Your task to perform on an android device: toggle pop-ups in chrome Image 0: 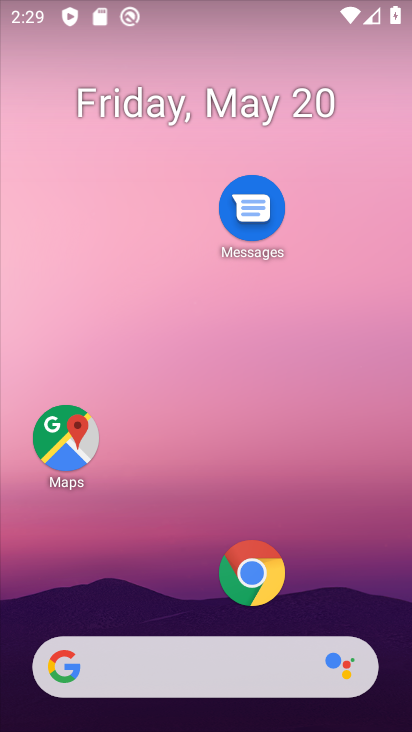
Step 0: click (249, 573)
Your task to perform on an android device: toggle pop-ups in chrome Image 1: 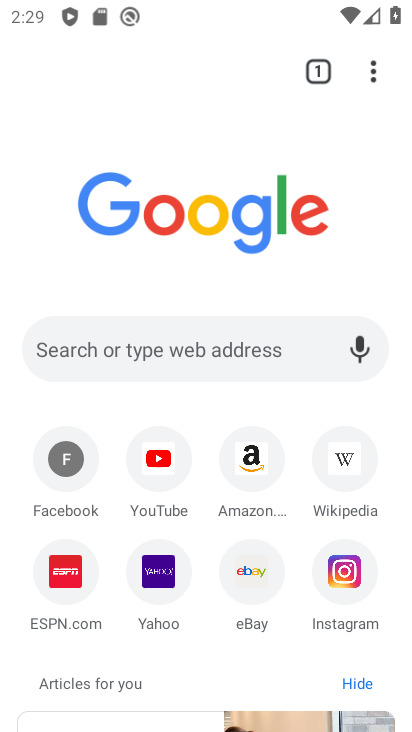
Step 1: click (381, 75)
Your task to perform on an android device: toggle pop-ups in chrome Image 2: 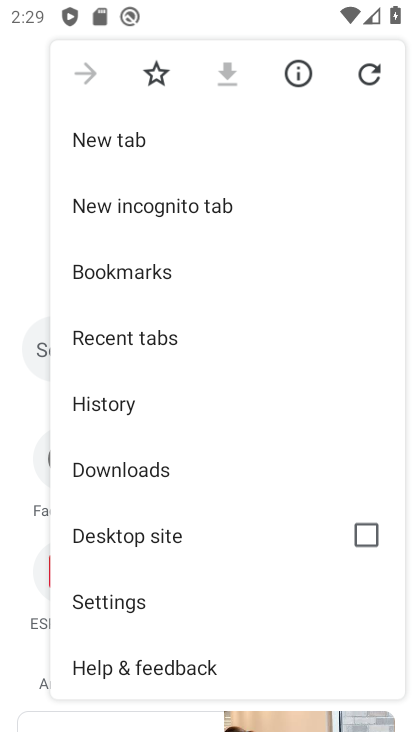
Step 2: drag from (153, 655) to (215, 232)
Your task to perform on an android device: toggle pop-ups in chrome Image 3: 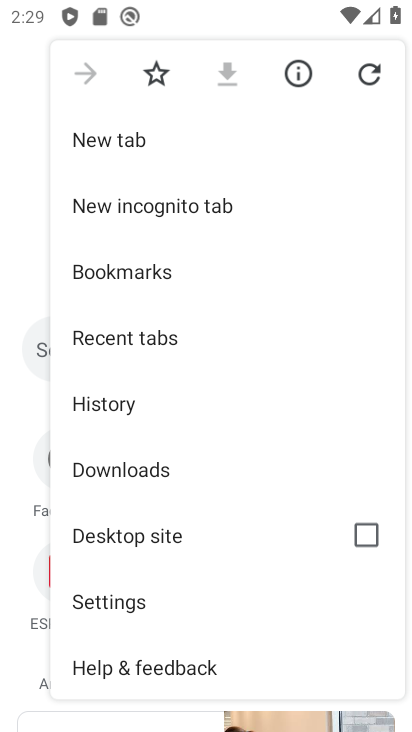
Step 3: click (117, 589)
Your task to perform on an android device: toggle pop-ups in chrome Image 4: 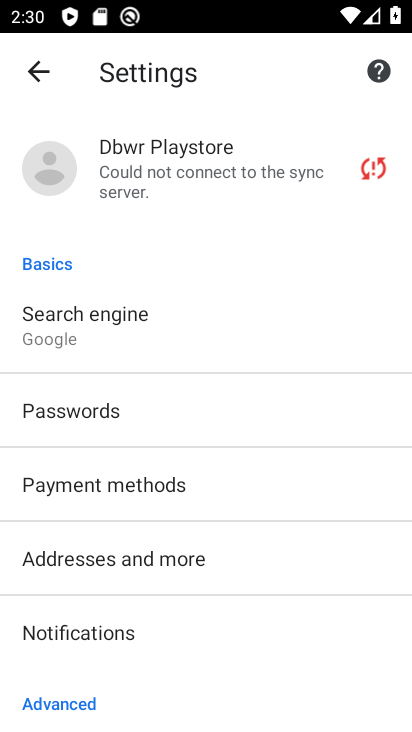
Step 4: click (117, 589)
Your task to perform on an android device: toggle pop-ups in chrome Image 5: 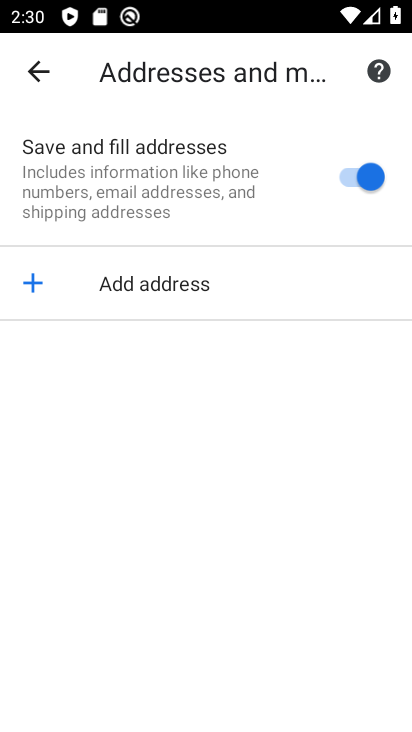
Step 5: drag from (197, 513) to (223, 177)
Your task to perform on an android device: toggle pop-ups in chrome Image 6: 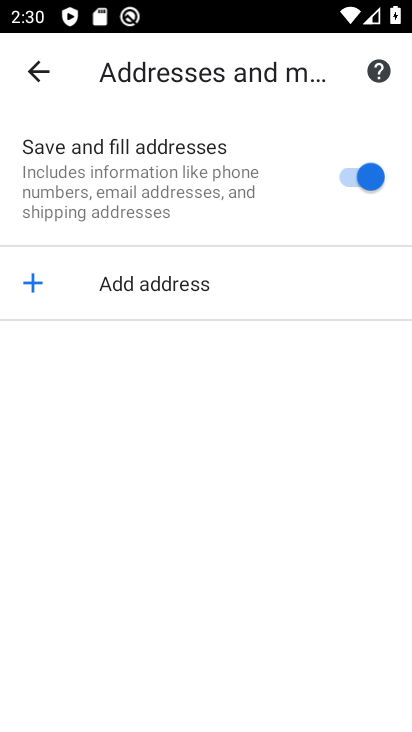
Step 6: click (122, 108)
Your task to perform on an android device: toggle pop-ups in chrome Image 7: 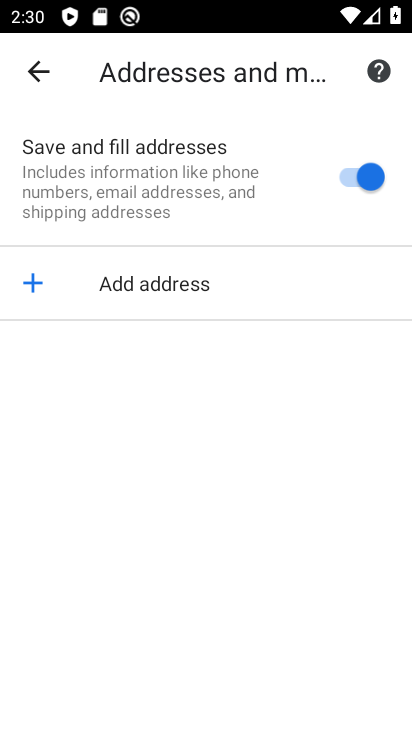
Step 7: click (50, 84)
Your task to perform on an android device: toggle pop-ups in chrome Image 8: 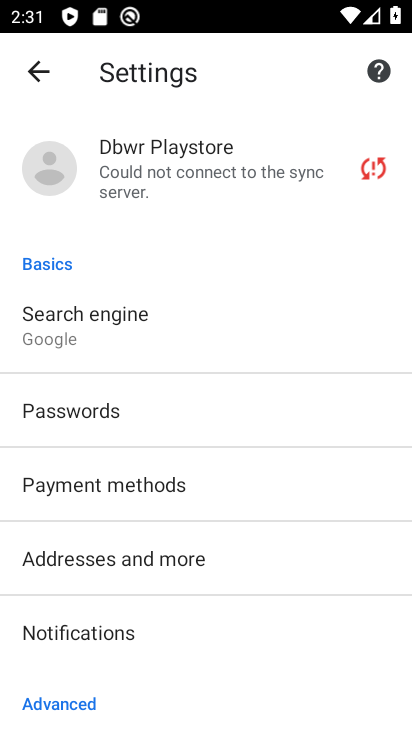
Step 8: drag from (131, 623) to (159, 297)
Your task to perform on an android device: toggle pop-ups in chrome Image 9: 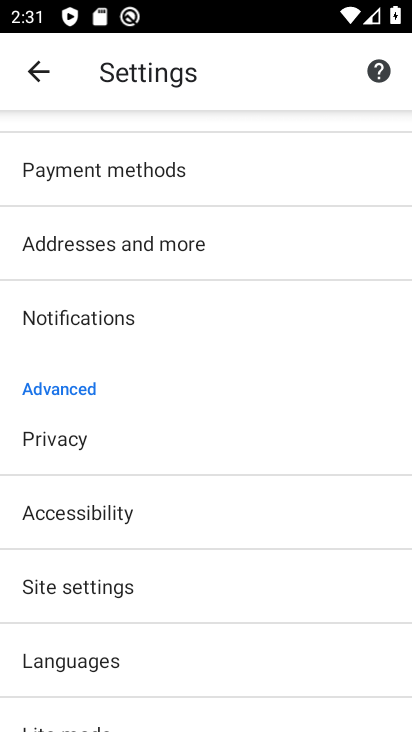
Step 9: drag from (165, 619) to (175, 397)
Your task to perform on an android device: toggle pop-ups in chrome Image 10: 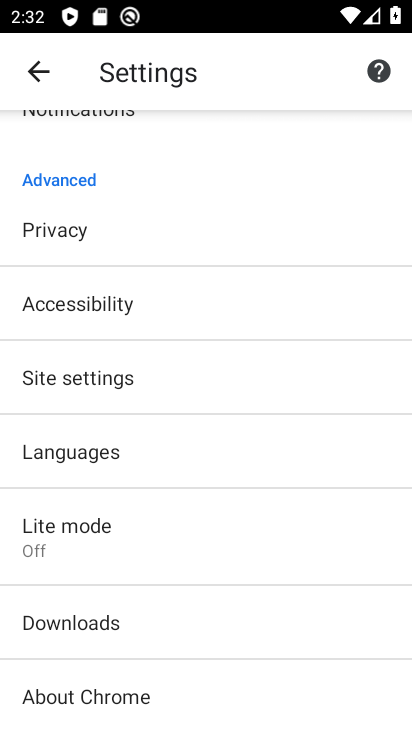
Step 10: drag from (233, 236) to (210, 583)
Your task to perform on an android device: toggle pop-ups in chrome Image 11: 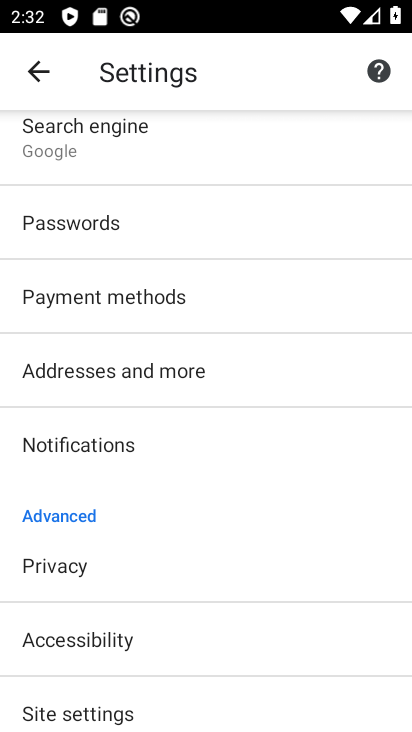
Step 11: drag from (144, 210) to (125, 621)
Your task to perform on an android device: toggle pop-ups in chrome Image 12: 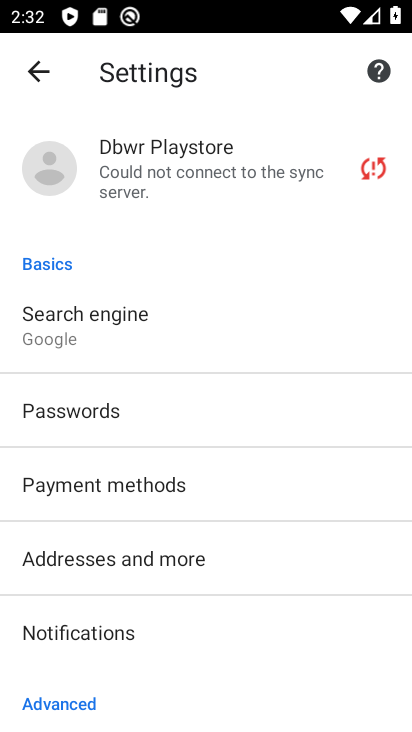
Step 12: drag from (183, 621) to (290, 187)
Your task to perform on an android device: toggle pop-ups in chrome Image 13: 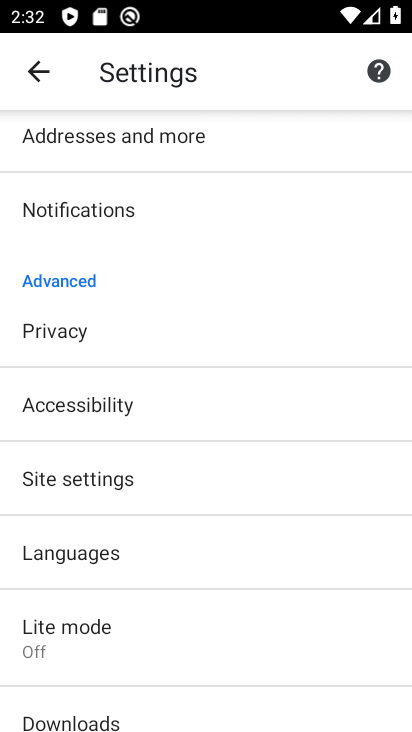
Step 13: click (185, 482)
Your task to perform on an android device: toggle pop-ups in chrome Image 14: 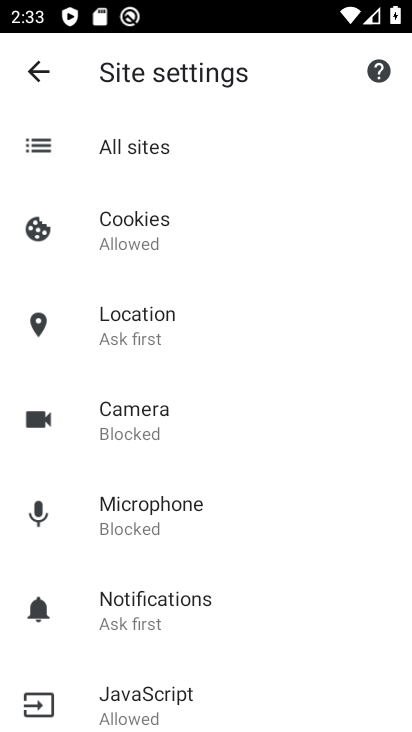
Step 14: drag from (124, 622) to (191, 205)
Your task to perform on an android device: toggle pop-ups in chrome Image 15: 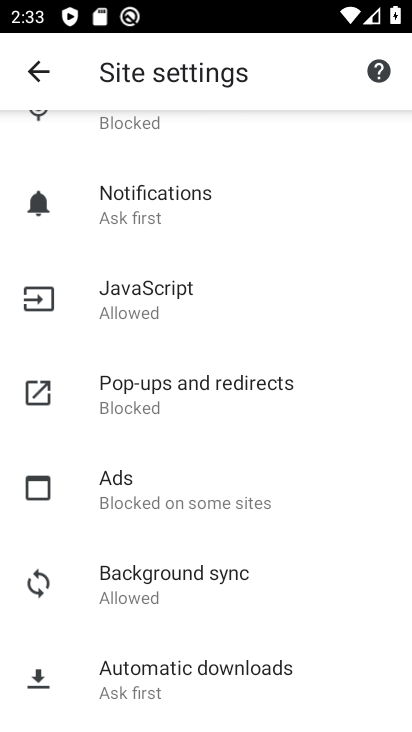
Step 15: click (255, 417)
Your task to perform on an android device: toggle pop-ups in chrome Image 16: 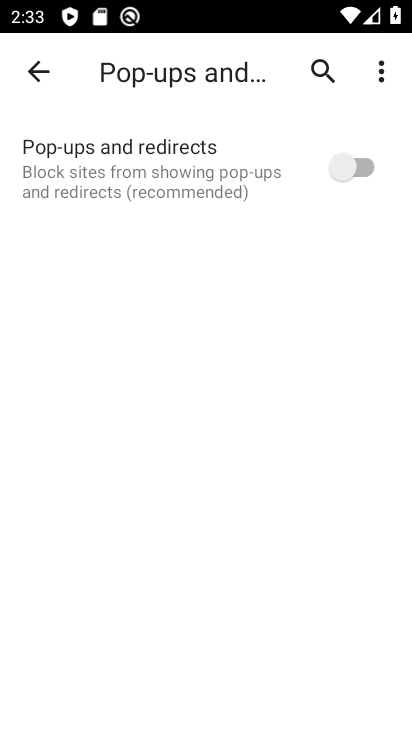
Step 16: click (352, 168)
Your task to perform on an android device: toggle pop-ups in chrome Image 17: 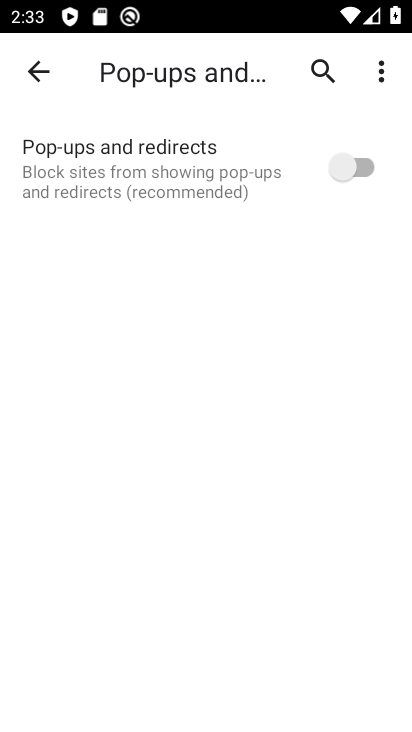
Step 17: click (352, 168)
Your task to perform on an android device: toggle pop-ups in chrome Image 18: 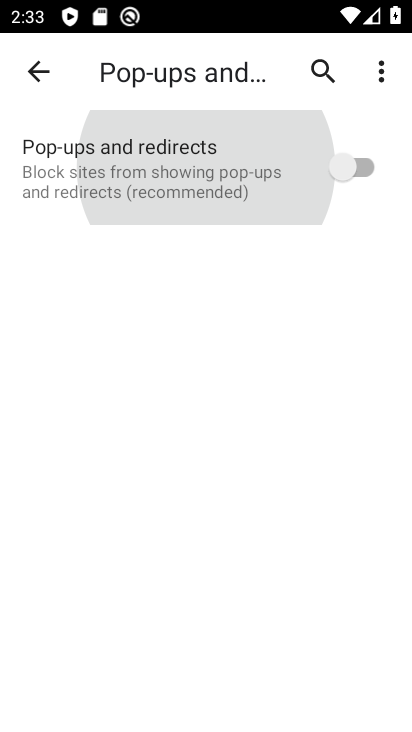
Step 18: click (352, 168)
Your task to perform on an android device: toggle pop-ups in chrome Image 19: 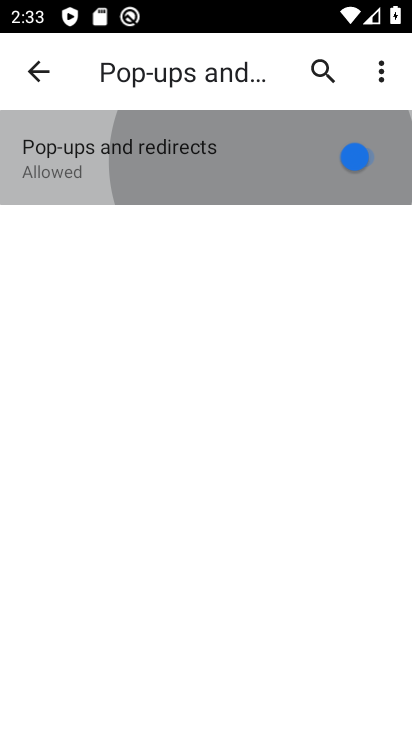
Step 19: click (352, 168)
Your task to perform on an android device: toggle pop-ups in chrome Image 20: 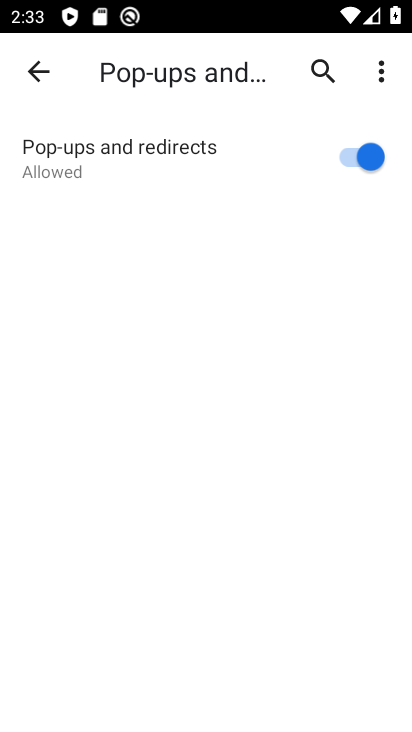
Step 20: click (352, 168)
Your task to perform on an android device: toggle pop-ups in chrome Image 21: 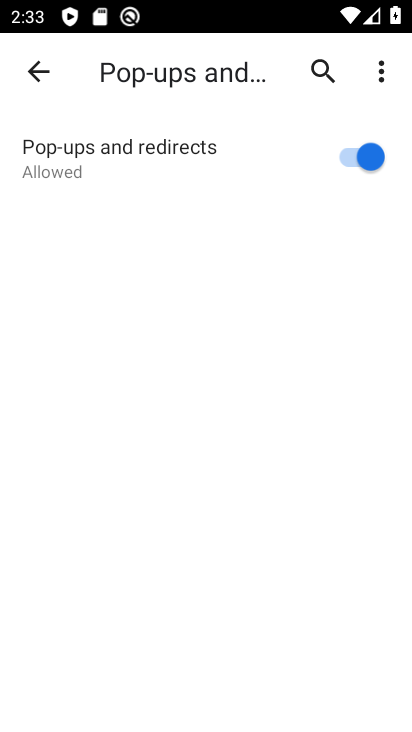
Step 21: click (352, 168)
Your task to perform on an android device: toggle pop-ups in chrome Image 22: 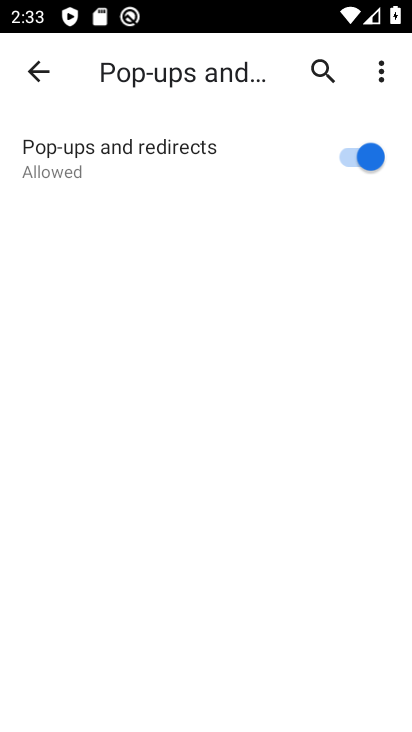
Step 22: task complete